Your task to perform on an android device: open device folders in google photos Image 0: 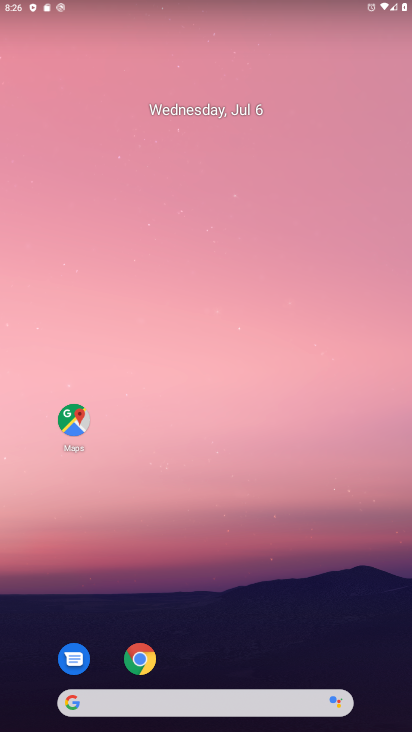
Step 0: drag from (322, 690) to (330, 40)
Your task to perform on an android device: open device folders in google photos Image 1: 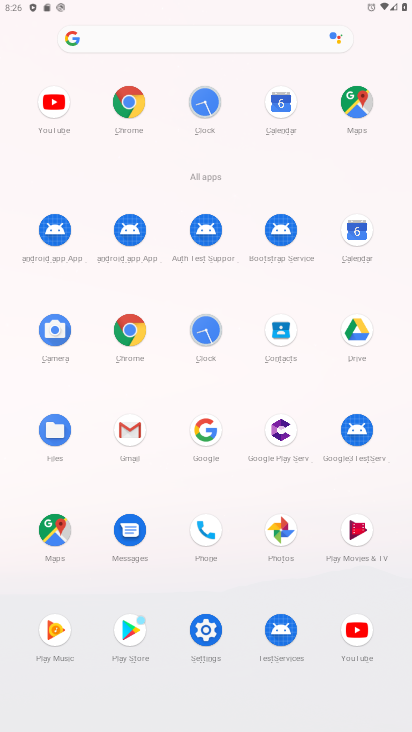
Step 1: click (284, 525)
Your task to perform on an android device: open device folders in google photos Image 2: 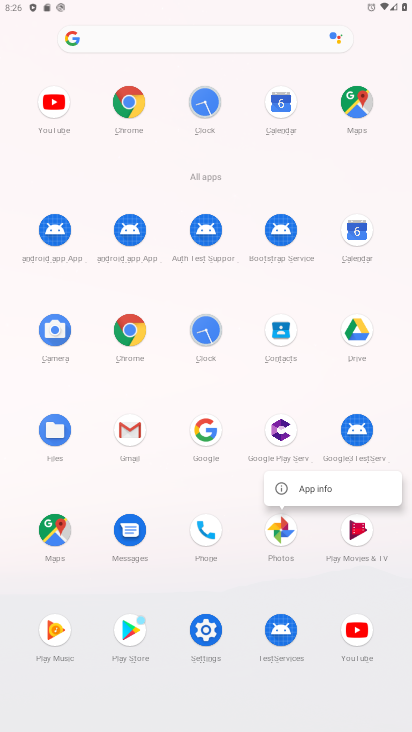
Step 2: click (285, 533)
Your task to perform on an android device: open device folders in google photos Image 3: 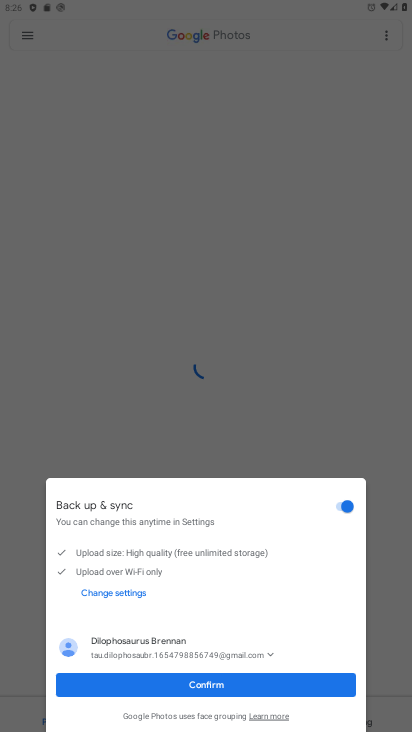
Step 3: click (224, 680)
Your task to perform on an android device: open device folders in google photos Image 4: 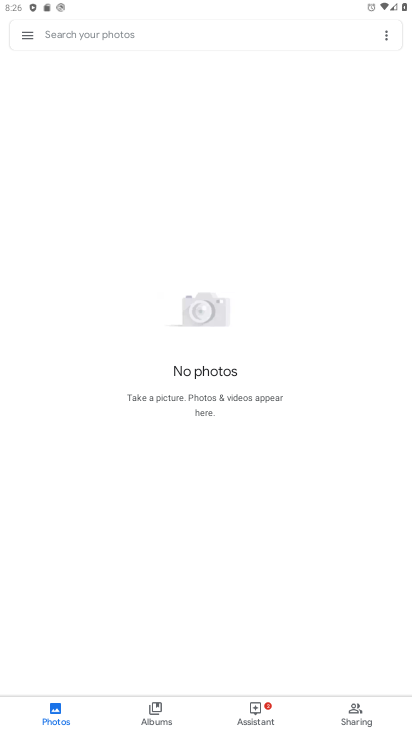
Step 4: click (25, 33)
Your task to perform on an android device: open device folders in google photos Image 5: 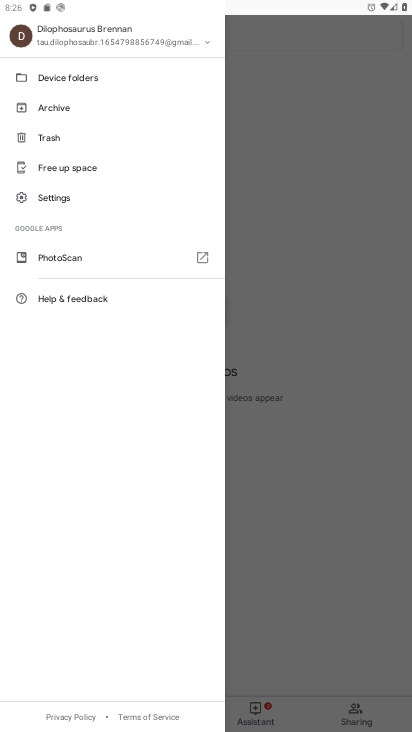
Step 5: click (93, 80)
Your task to perform on an android device: open device folders in google photos Image 6: 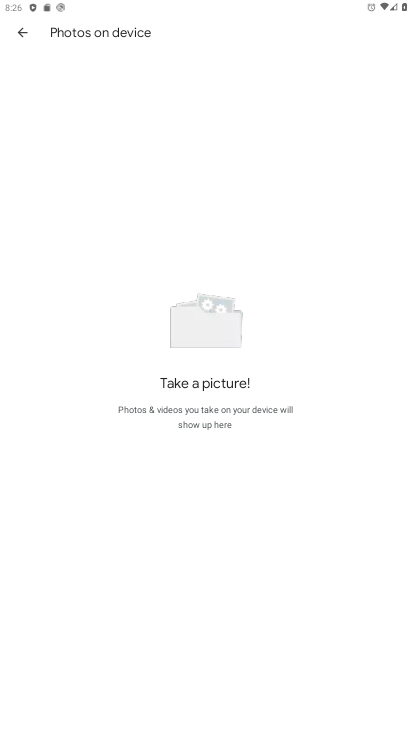
Step 6: task complete